Your task to perform on an android device: Do I have any events tomorrow? Image 0: 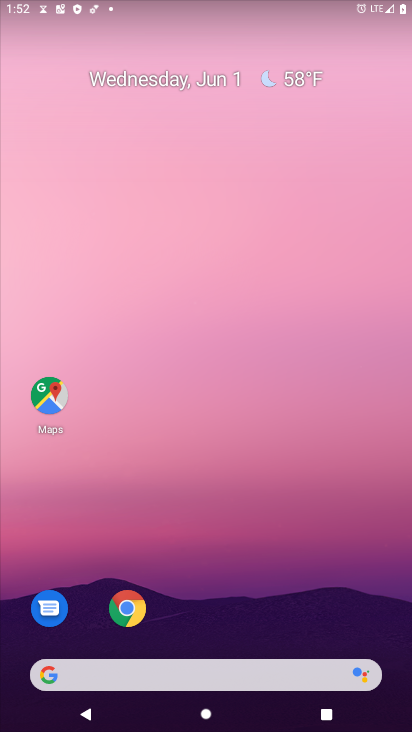
Step 0: drag from (252, 447) to (223, 35)
Your task to perform on an android device: Do I have any events tomorrow? Image 1: 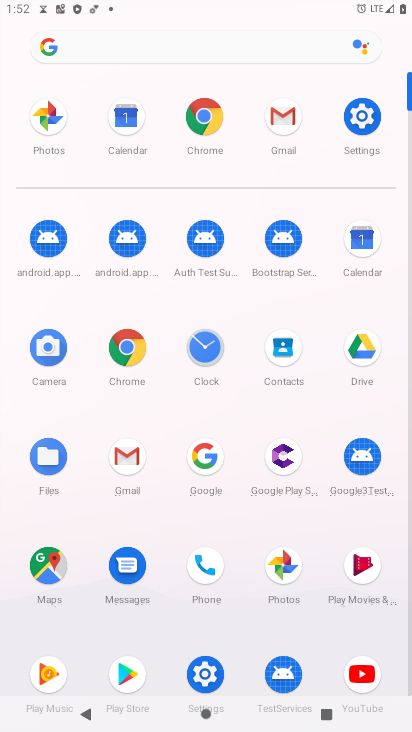
Step 1: click (367, 244)
Your task to perform on an android device: Do I have any events tomorrow? Image 2: 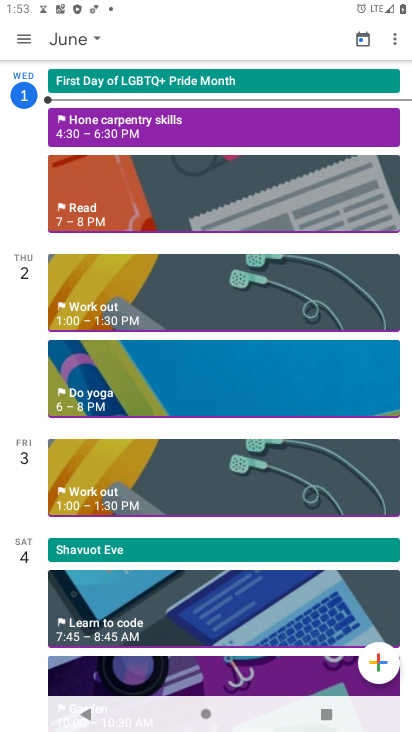
Step 2: task complete